Your task to perform on an android device: Go to Android settings Image 0: 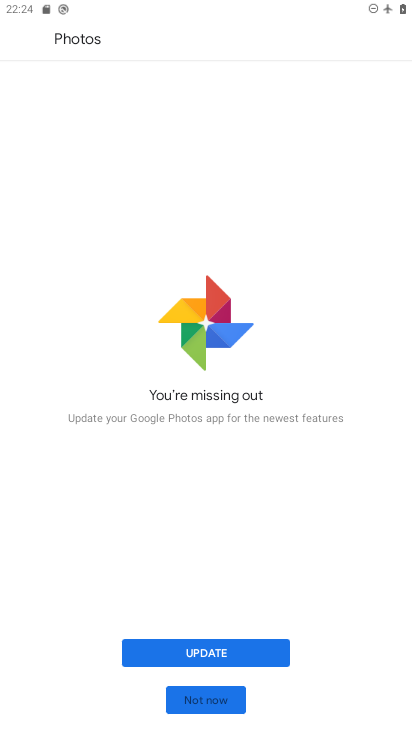
Step 0: press home button
Your task to perform on an android device: Go to Android settings Image 1: 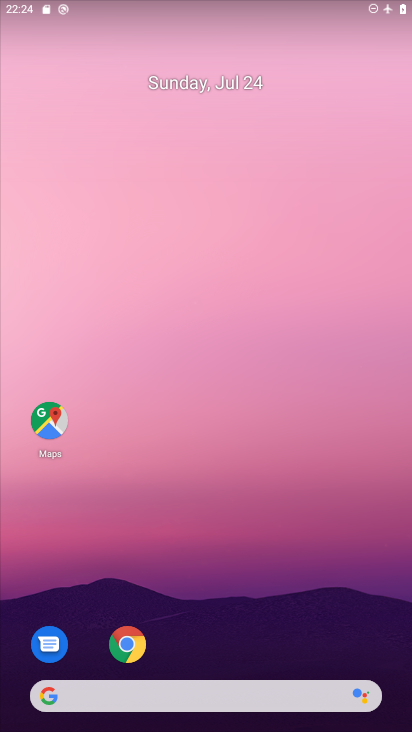
Step 1: drag from (316, 649) to (310, 208)
Your task to perform on an android device: Go to Android settings Image 2: 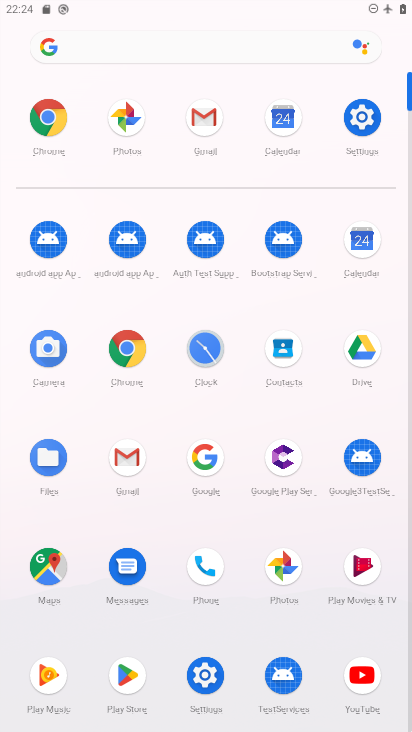
Step 2: click (205, 674)
Your task to perform on an android device: Go to Android settings Image 3: 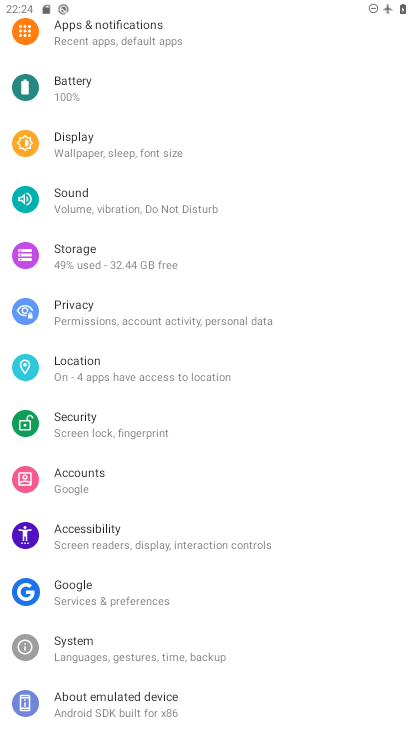
Step 3: click (92, 698)
Your task to perform on an android device: Go to Android settings Image 4: 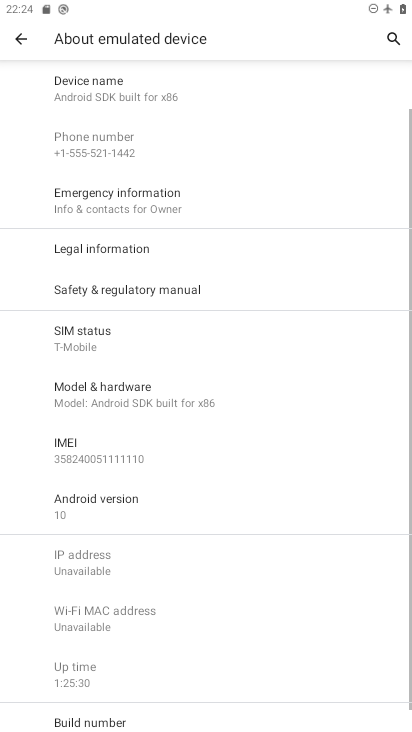
Step 4: task complete